Your task to perform on an android device: What is the recent news? Image 0: 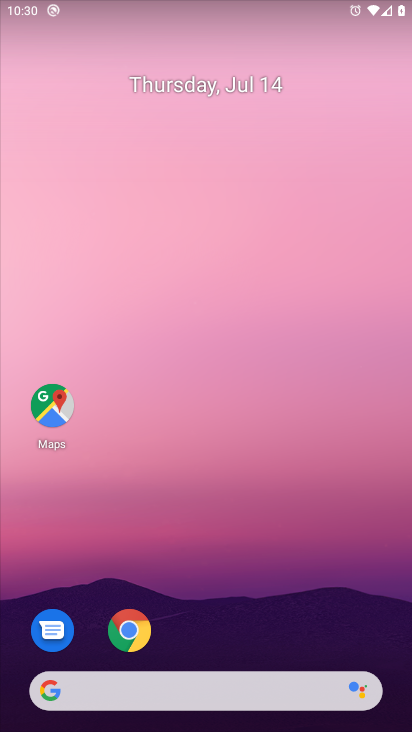
Step 0: click (133, 691)
Your task to perform on an android device: What is the recent news? Image 1: 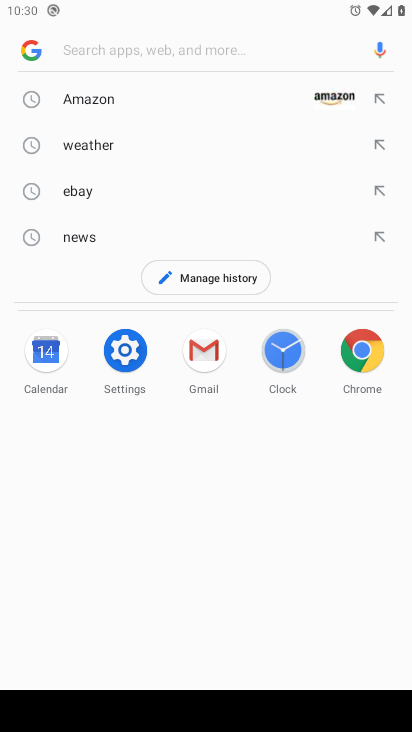
Step 1: type "What is the recent news?"
Your task to perform on an android device: What is the recent news? Image 2: 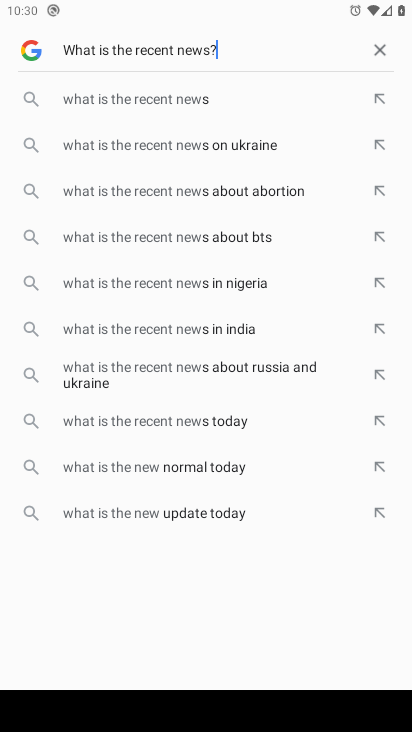
Step 2: type ""
Your task to perform on an android device: What is the recent news? Image 3: 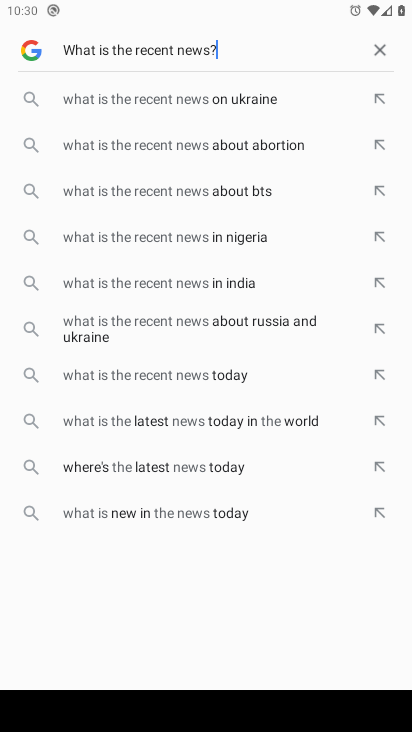
Step 3: type ""
Your task to perform on an android device: What is the recent news? Image 4: 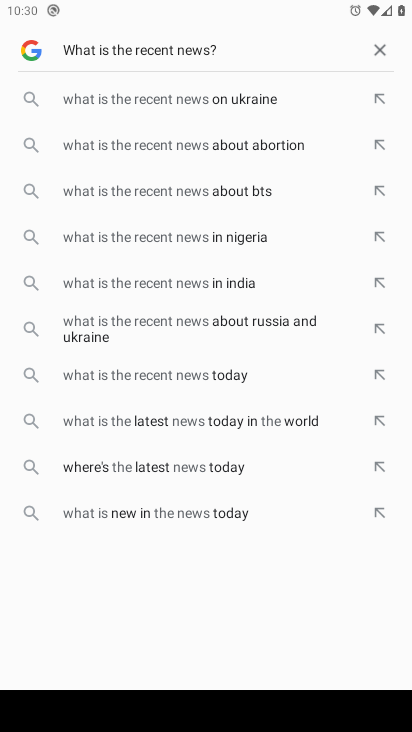
Step 4: type ""
Your task to perform on an android device: What is the recent news? Image 5: 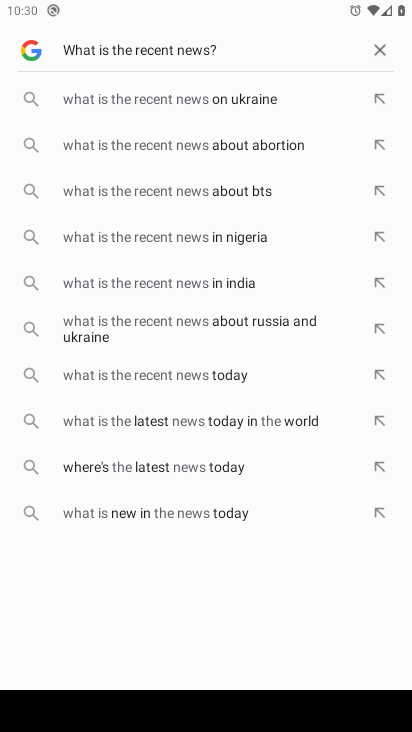
Step 5: type ""
Your task to perform on an android device: What is the recent news? Image 6: 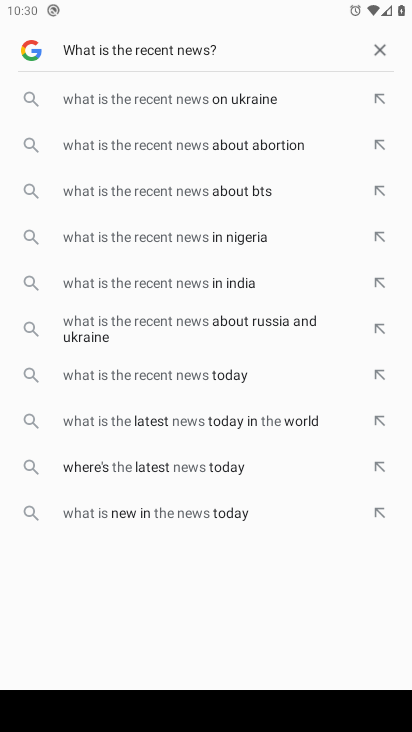
Step 6: task complete